Your task to perform on an android device: Turn on the flashlight Image 0: 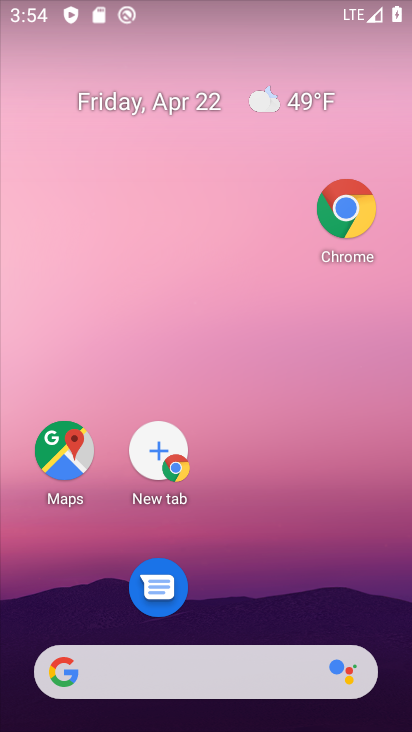
Step 0: drag from (247, 565) to (269, 131)
Your task to perform on an android device: Turn on the flashlight Image 1: 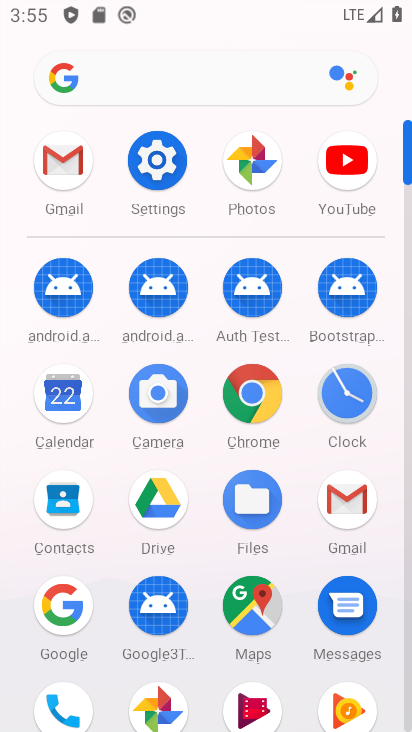
Step 1: click (152, 167)
Your task to perform on an android device: Turn on the flashlight Image 2: 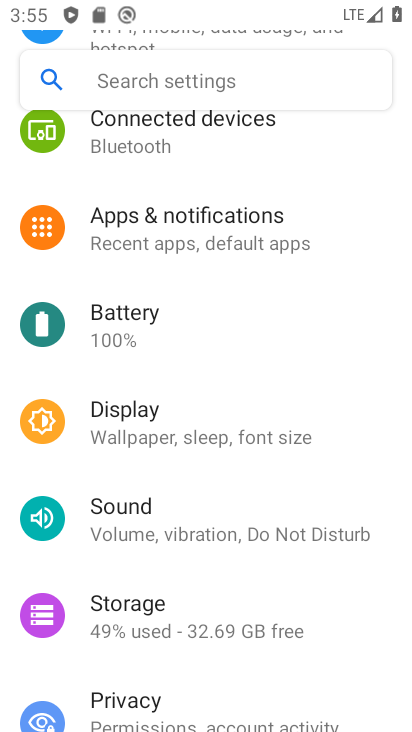
Step 2: task complete